Your task to perform on an android device: Open calendar and show me the second week of next month Image 0: 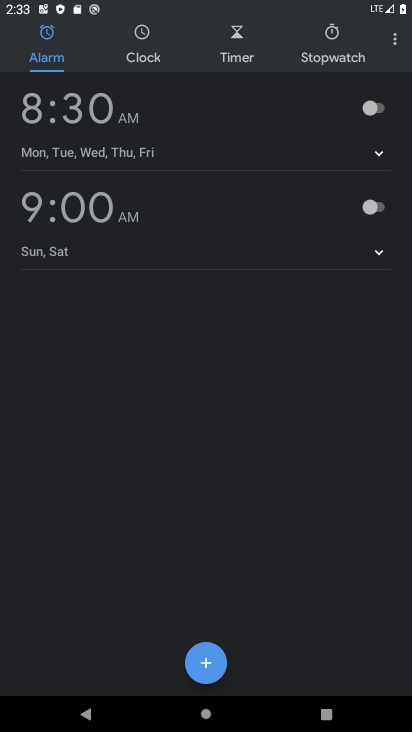
Step 0: press home button
Your task to perform on an android device: Open calendar and show me the second week of next month Image 1: 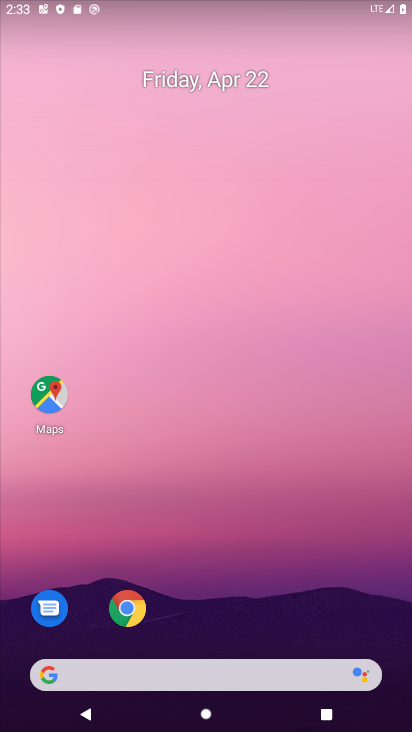
Step 1: drag from (281, 646) to (261, 241)
Your task to perform on an android device: Open calendar and show me the second week of next month Image 2: 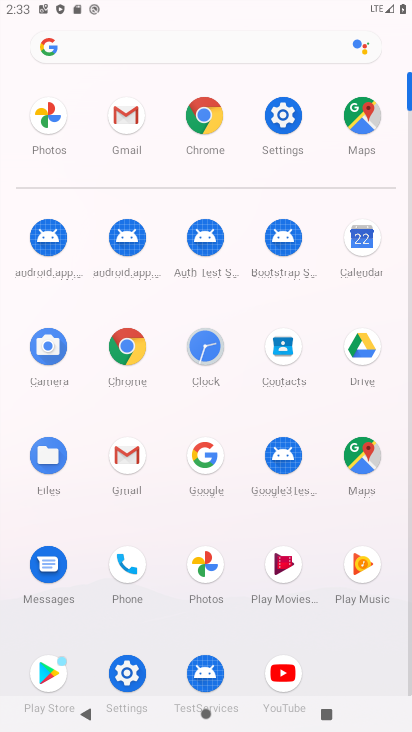
Step 2: click (351, 252)
Your task to perform on an android device: Open calendar and show me the second week of next month Image 3: 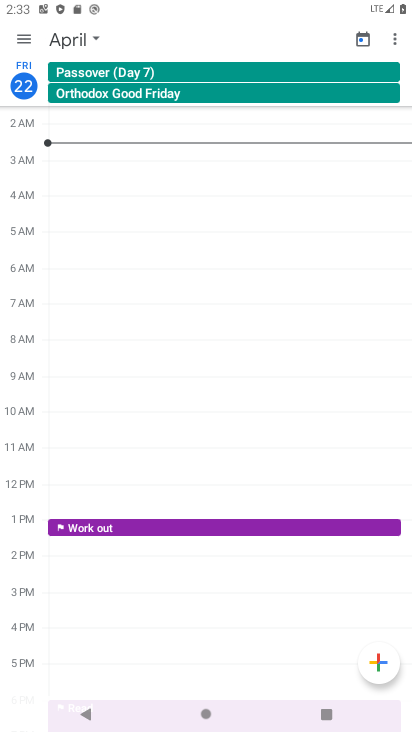
Step 3: click (32, 39)
Your task to perform on an android device: Open calendar and show me the second week of next month Image 4: 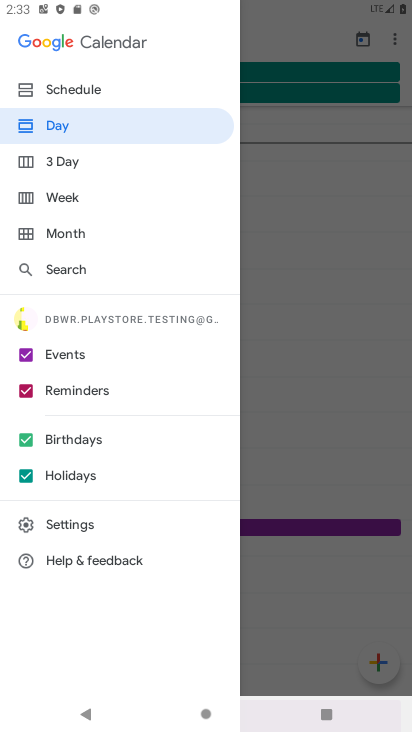
Step 4: click (85, 237)
Your task to perform on an android device: Open calendar and show me the second week of next month Image 5: 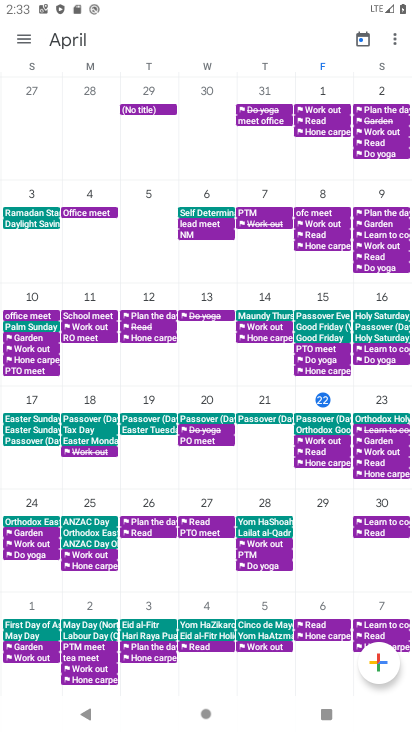
Step 5: drag from (395, 392) to (0, 418)
Your task to perform on an android device: Open calendar and show me the second week of next month Image 6: 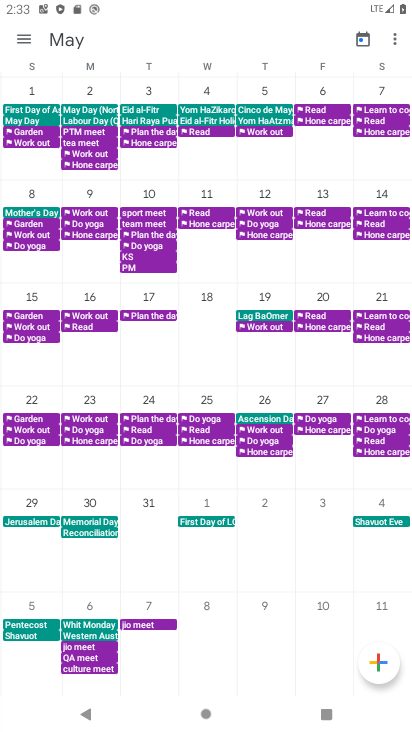
Step 6: click (95, 198)
Your task to perform on an android device: Open calendar and show me the second week of next month Image 7: 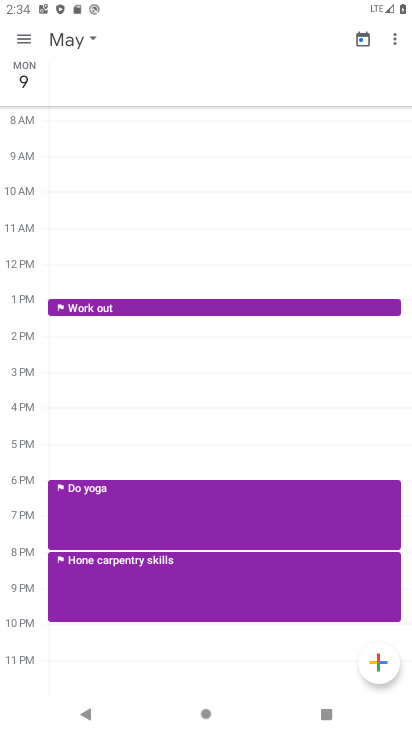
Step 7: task complete